Your task to perform on an android device: Search for Mexican restaurants on Maps Image 0: 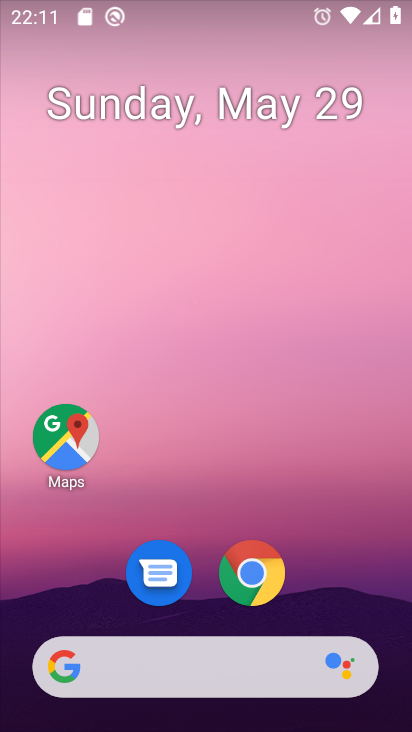
Step 0: click (70, 452)
Your task to perform on an android device: Search for Mexican restaurants on Maps Image 1: 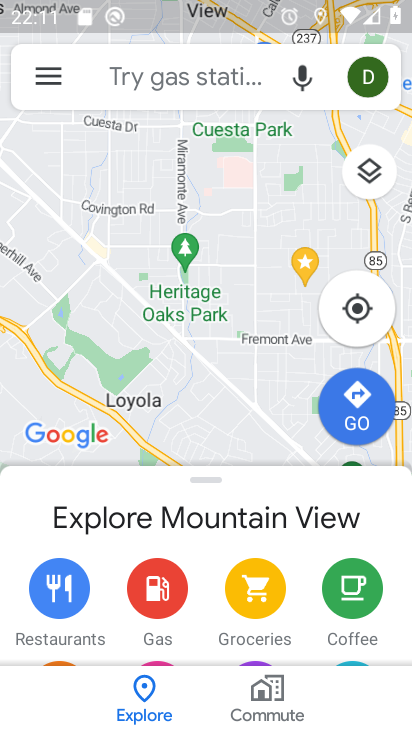
Step 1: click (173, 72)
Your task to perform on an android device: Search for Mexican restaurants on Maps Image 2: 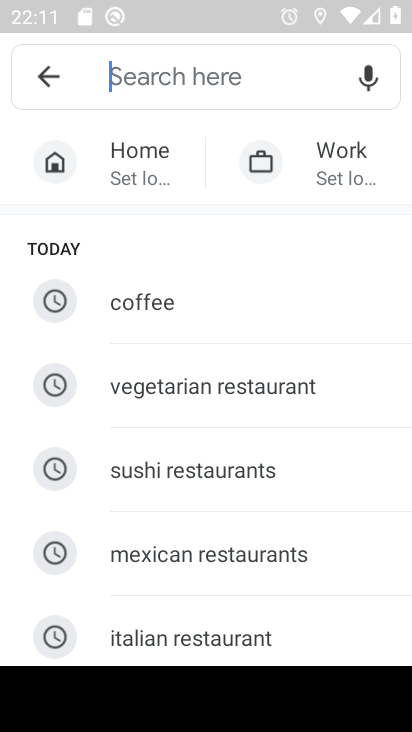
Step 2: click (201, 558)
Your task to perform on an android device: Search for Mexican restaurants on Maps Image 3: 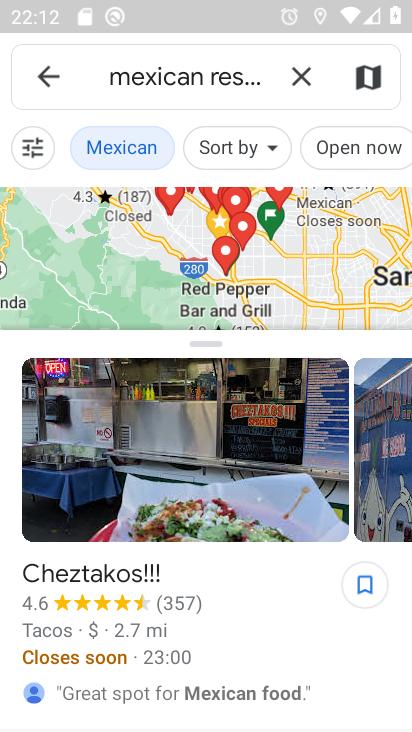
Step 3: task complete